Your task to perform on an android device: move a message to another label in the gmail app Image 0: 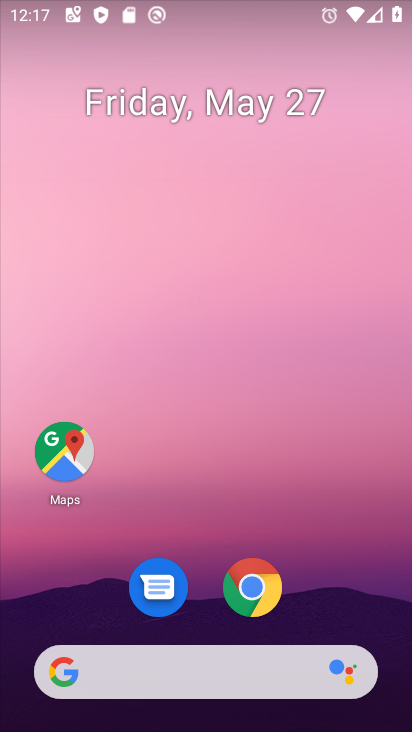
Step 0: drag from (212, 673) to (241, 93)
Your task to perform on an android device: move a message to another label in the gmail app Image 1: 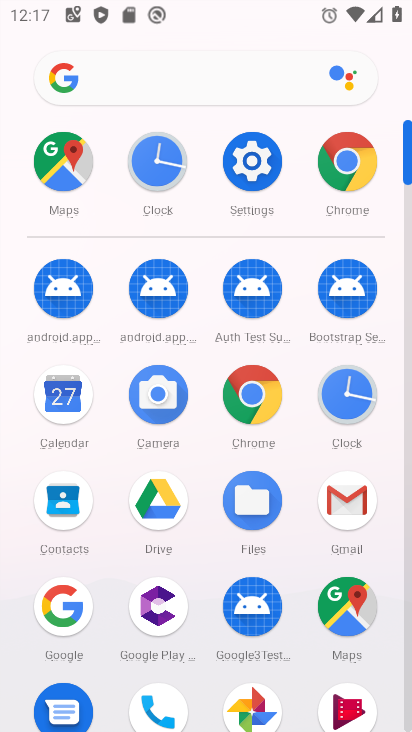
Step 1: click (327, 489)
Your task to perform on an android device: move a message to another label in the gmail app Image 2: 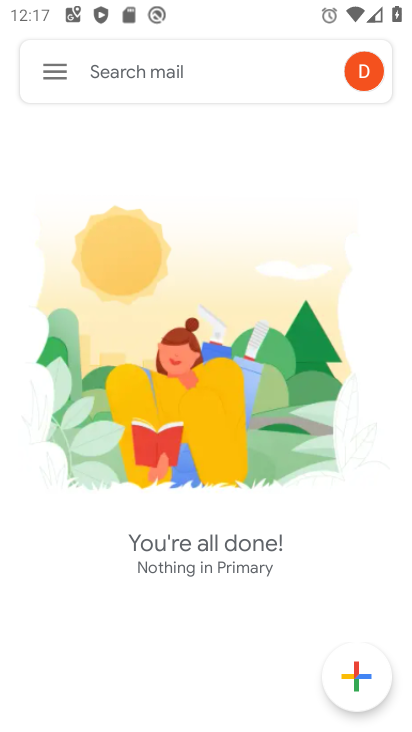
Step 2: click (56, 73)
Your task to perform on an android device: move a message to another label in the gmail app Image 3: 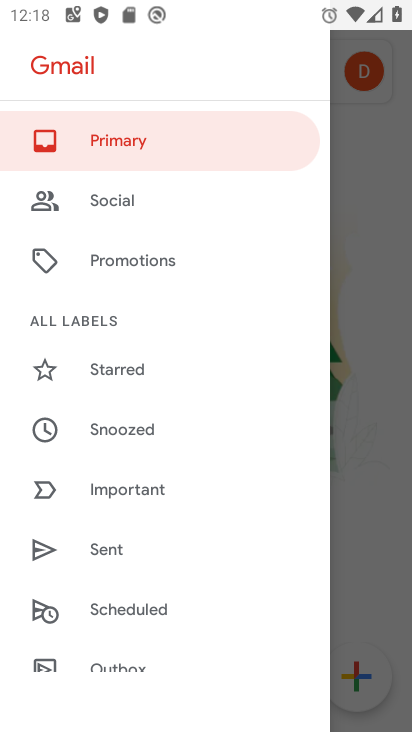
Step 3: drag from (102, 506) to (251, 92)
Your task to perform on an android device: move a message to another label in the gmail app Image 4: 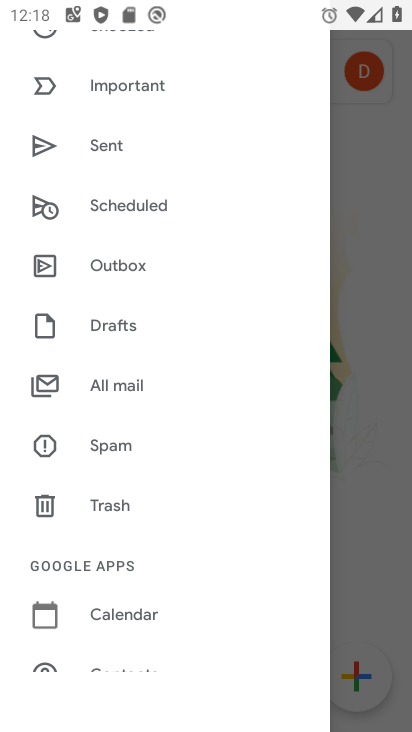
Step 4: drag from (103, 549) to (256, 149)
Your task to perform on an android device: move a message to another label in the gmail app Image 5: 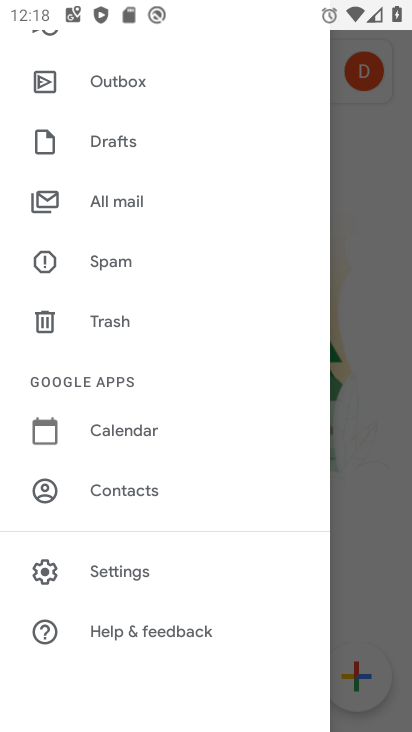
Step 5: click (98, 560)
Your task to perform on an android device: move a message to another label in the gmail app Image 6: 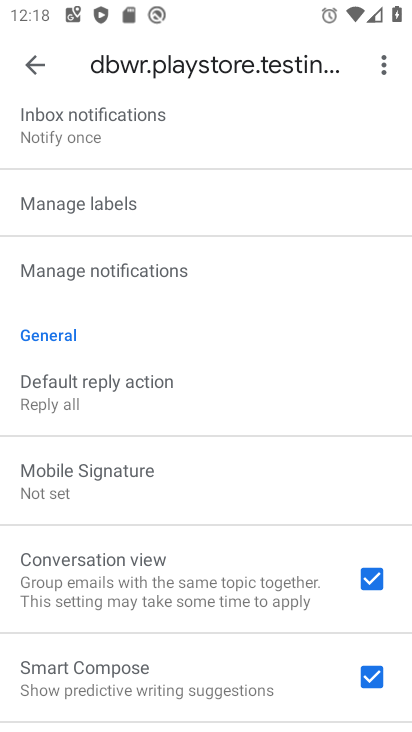
Step 6: click (135, 212)
Your task to perform on an android device: move a message to another label in the gmail app Image 7: 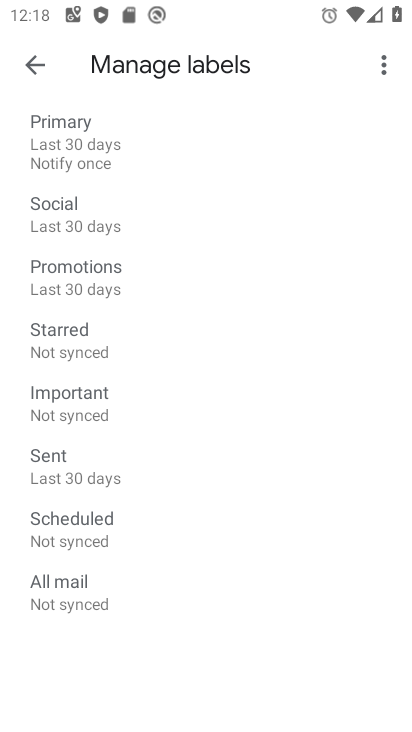
Step 7: click (95, 422)
Your task to perform on an android device: move a message to another label in the gmail app Image 8: 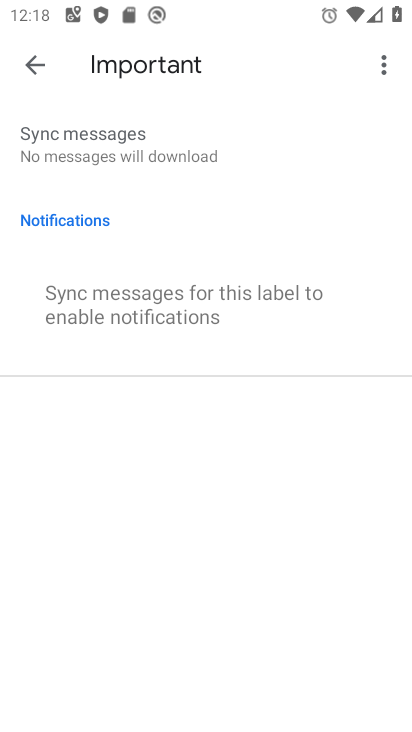
Step 8: task complete